Your task to perform on an android device: Go to Maps Image 0: 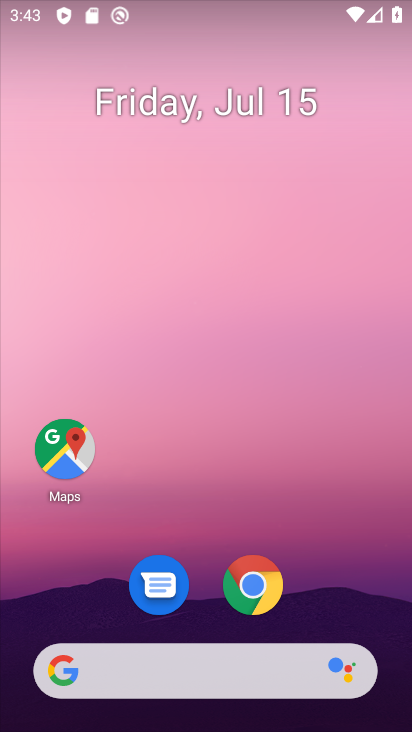
Step 0: click (69, 448)
Your task to perform on an android device: Go to Maps Image 1: 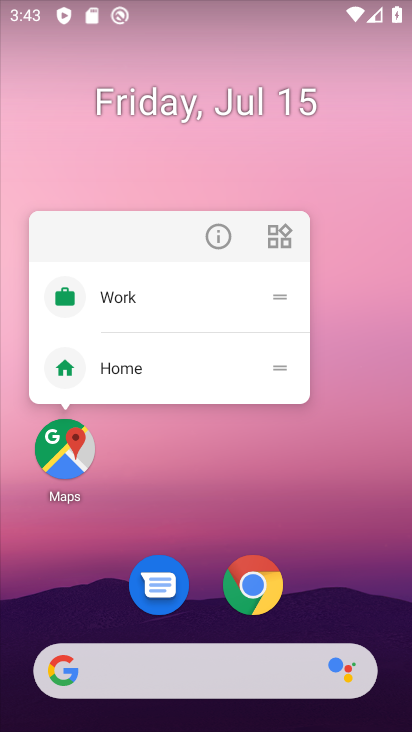
Step 1: click (69, 447)
Your task to perform on an android device: Go to Maps Image 2: 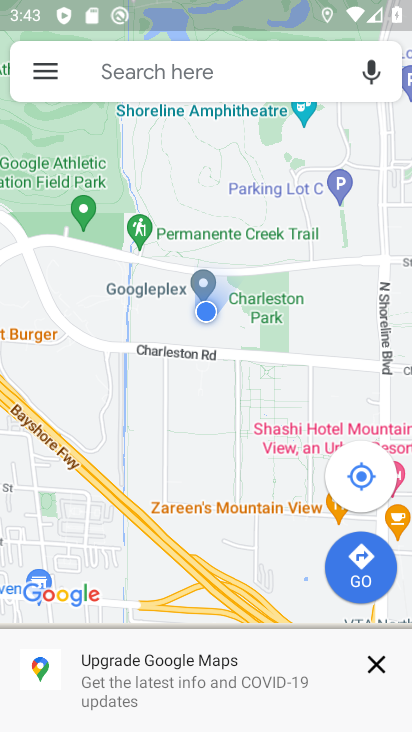
Step 2: task complete